Your task to perform on an android device: star an email in the gmail app Image 0: 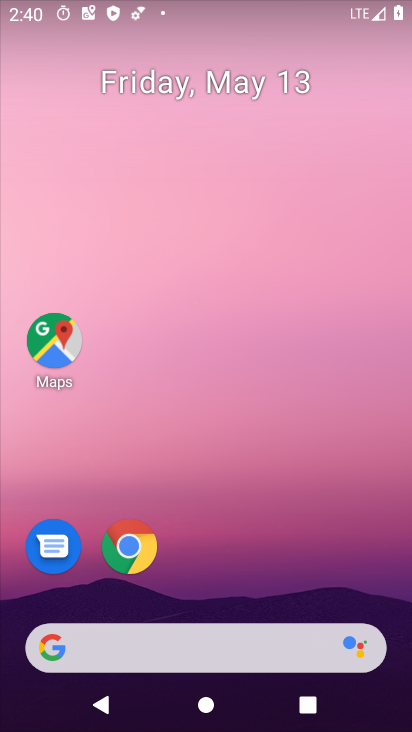
Step 0: drag from (213, 609) to (208, 77)
Your task to perform on an android device: star an email in the gmail app Image 1: 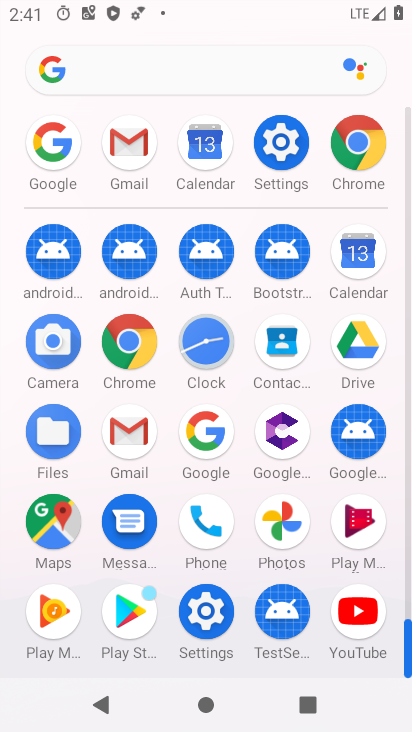
Step 1: click (147, 450)
Your task to perform on an android device: star an email in the gmail app Image 2: 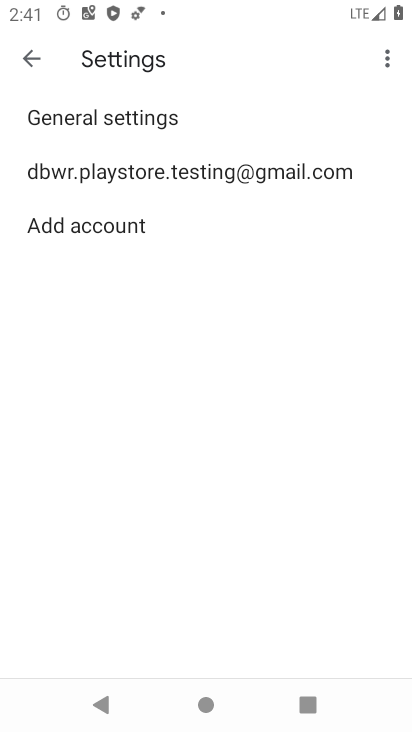
Step 2: click (30, 58)
Your task to perform on an android device: star an email in the gmail app Image 3: 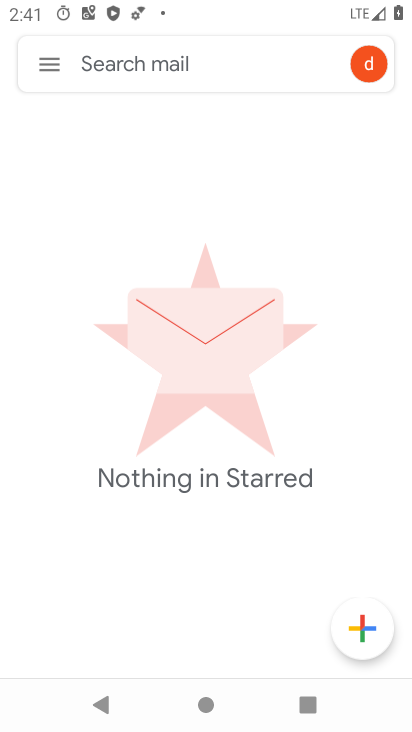
Step 3: click (62, 83)
Your task to perform on an android device: star an email in the gmail app Image 4: 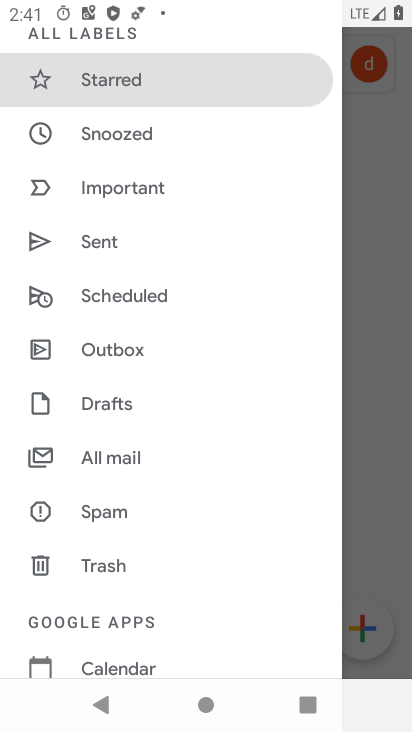
Step 4: click (136, 91)
Your task to perform on an android device: star an email in the gmail app Image 5: 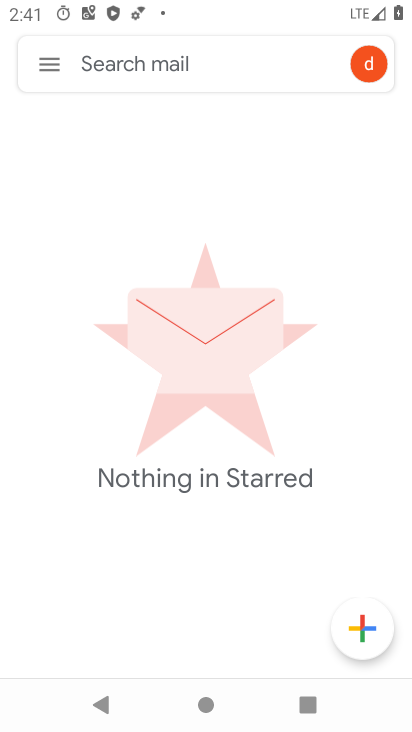
Step 5: task complete